Your task to perform on an android device: clear history in the chrome app Image 0: 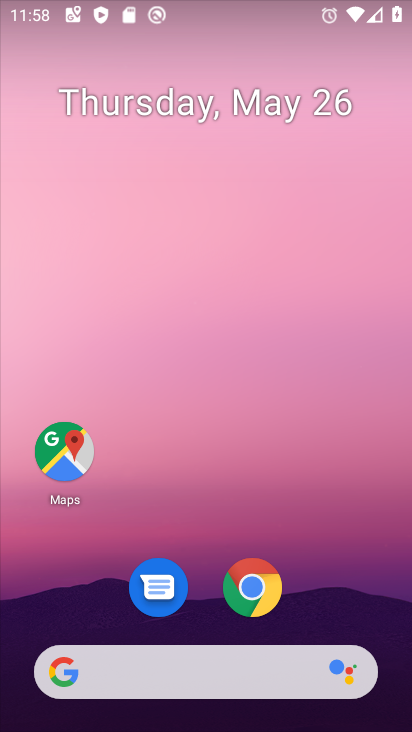
Step 0: drag from (280, 697) to (359, 107)
Your task to perform on an android device: clear history in the chrome app Image 1: 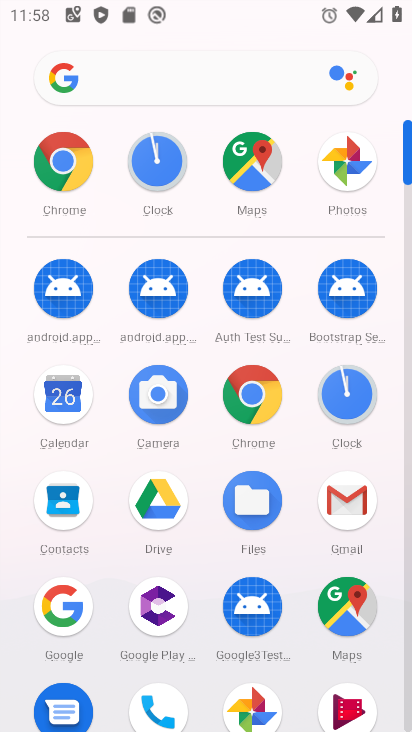
Step 1: click (85, 161)
Your task to perform on an android device: clear history in the chrome app Image 2: 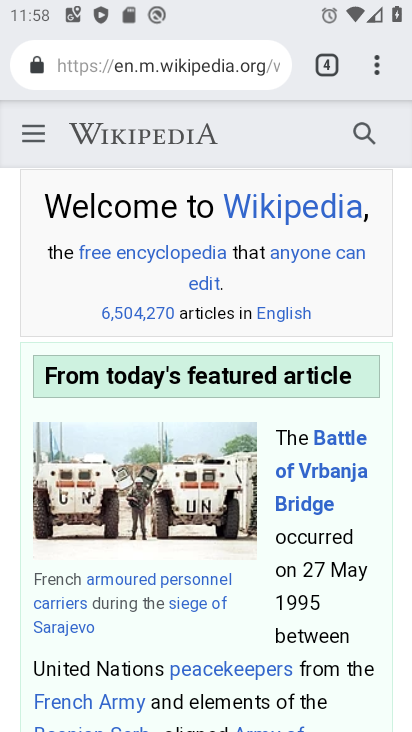
Step 2: click (377, 78)
Your task to perform on an android device: clear history in the chrome app Image 3: 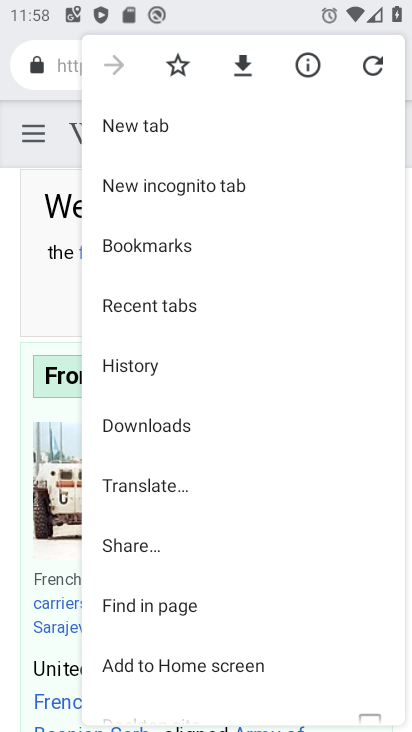
Step 3: click (157, 356)
Your task to perform on an android device: clear history in the chrome app Image 4: 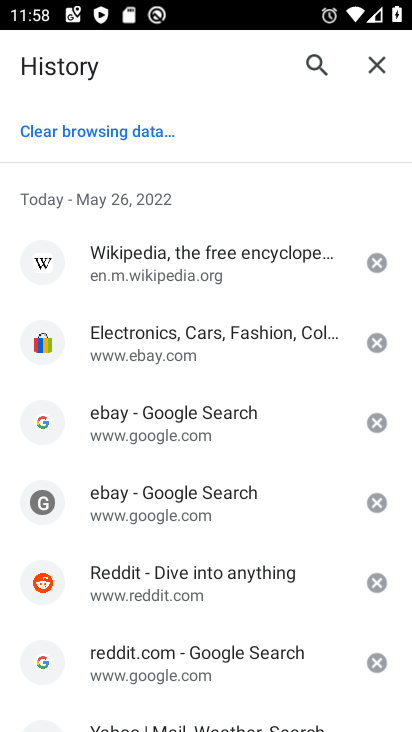
Step 4: click (106, 125)
Your task to perform on an android device: clear history in the chrome app Image 5: 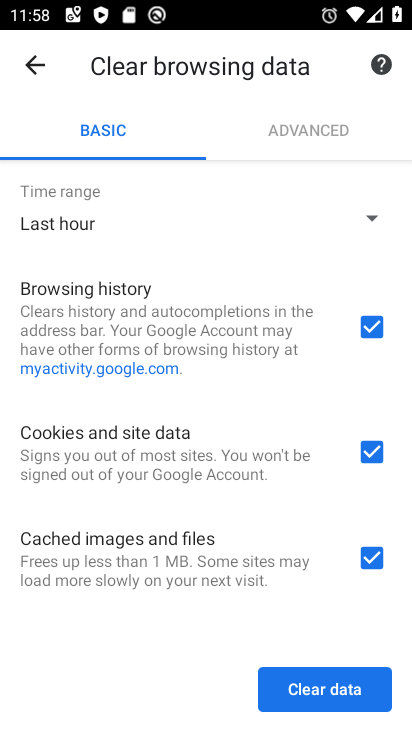
Step 5: click (328, 680)
Your task to perform on an android device: clear history in the chrome app Image 6: 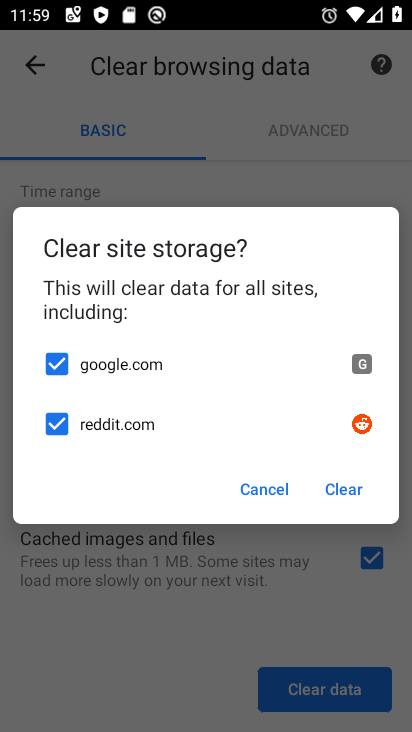
Step 6: task complete